Your task to perform on an android device: When is my next meeting? Image 0: 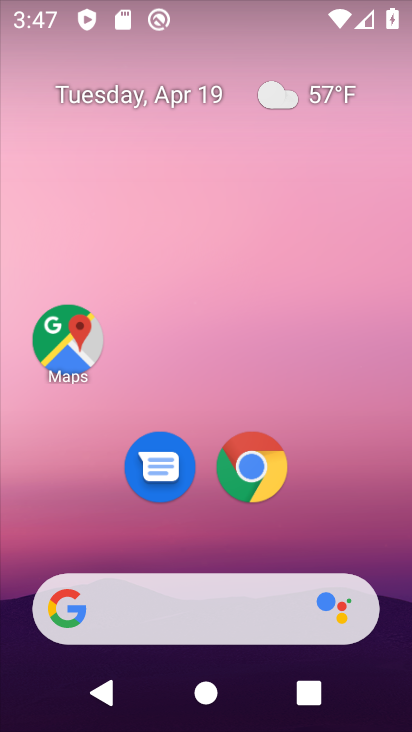
Step 0: drag from (242, 630) to (236, 258)
Your task to perform on an android device: When is my next meeting? Image 1: 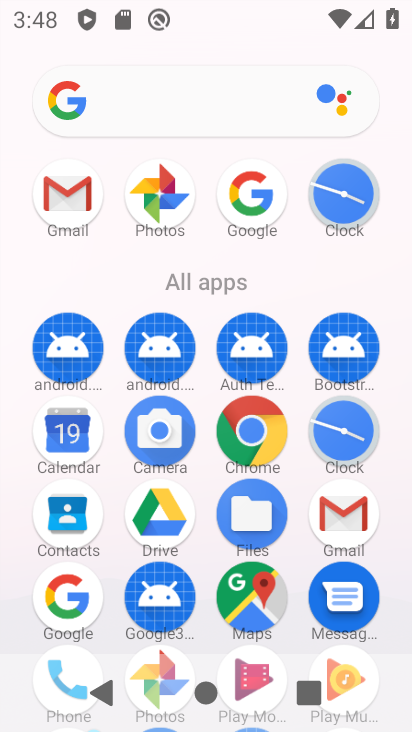
Step 1: click (71, 452)
Your task to perform on an android device: When is my next meeting? Image 2: 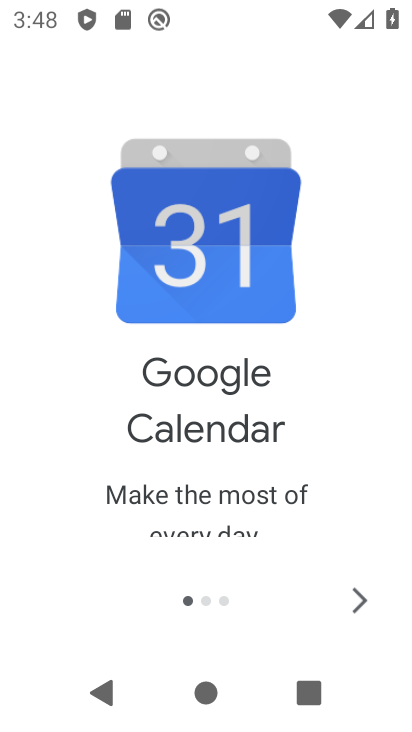
Step 2: click (363, 591)
Your task to perform on an android device: When is my next meeting? Image 3: 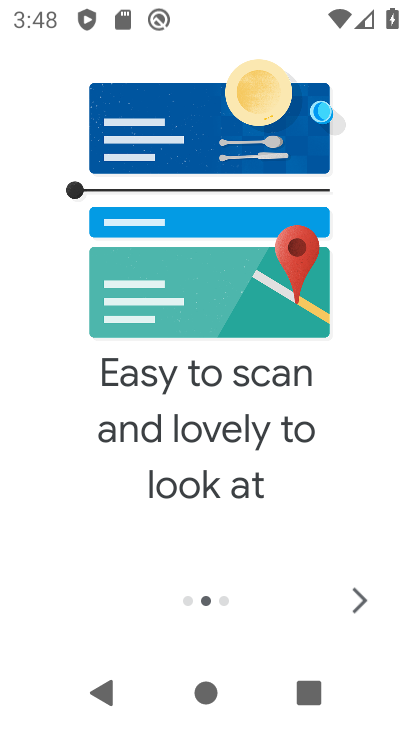
Step 3: click (363, 591)
Your task to perform on an android device: When is my next meeting? Image 4: 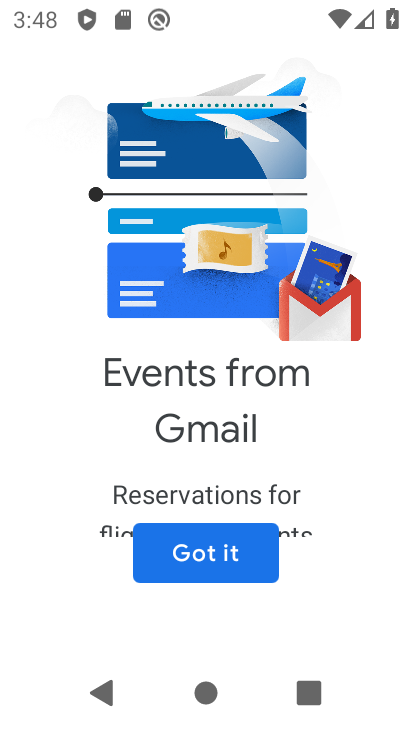
Step 4: click (252, 555)
Your task to perform on an android device: When is my next meeting? Image 5: 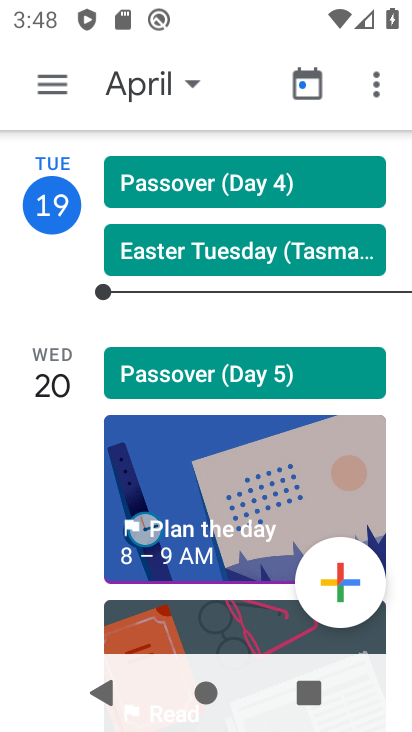
Step 5: click (190, 88)
Your task to perform on an android device: When is my next meeting? Image 6: 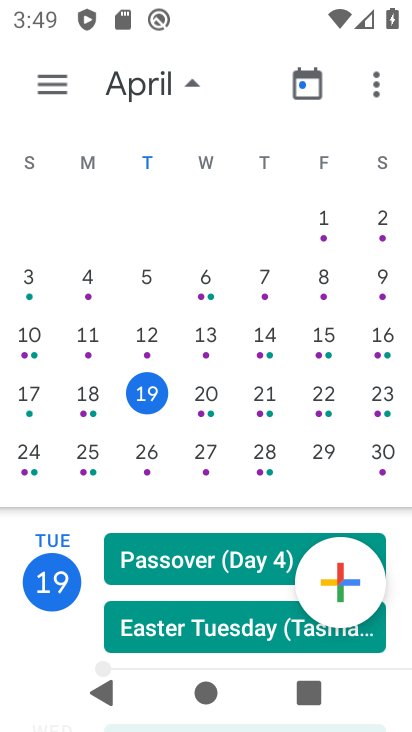
Step 6: drag from (220, 389) to (224, 348)
Your task to perform on an android device: When is my next meeting? Image 7: 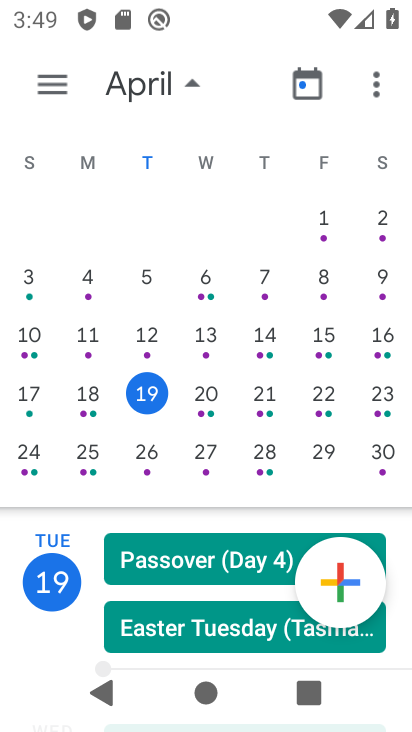
Step 7: click (245, 199)
Your task to perform on an android device: When is my next meeting? Image 8: 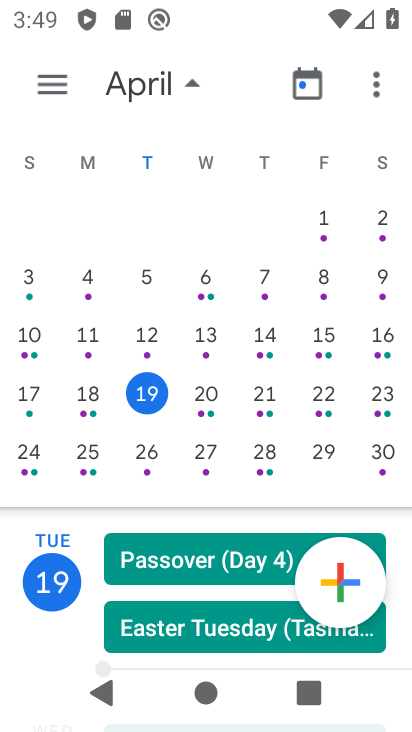
Step 8: task complete